Your task to perform on an android device: snooze an email in the gmail app Image 0: 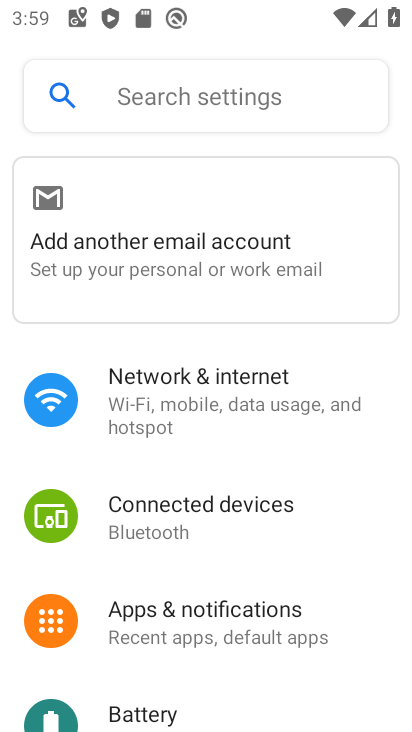
Step 0: press home button
Your task to perform on an android device: snooze an email in the gmail app Image 1: 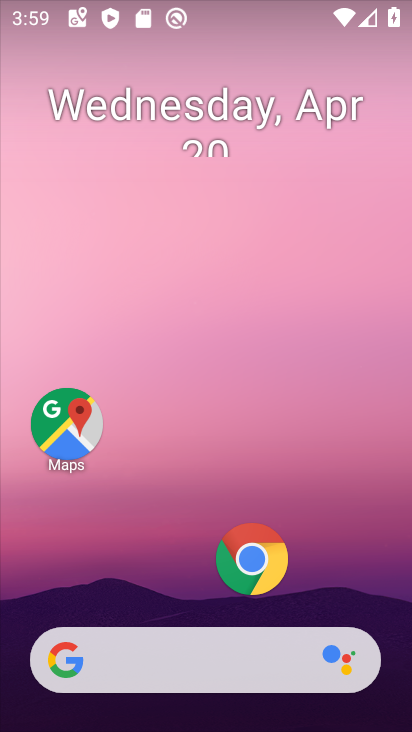
Step 1: drag from (151, 557) to (156, 147)
Your task to perform on an android device: snooze an email in the gmail app Image 2: 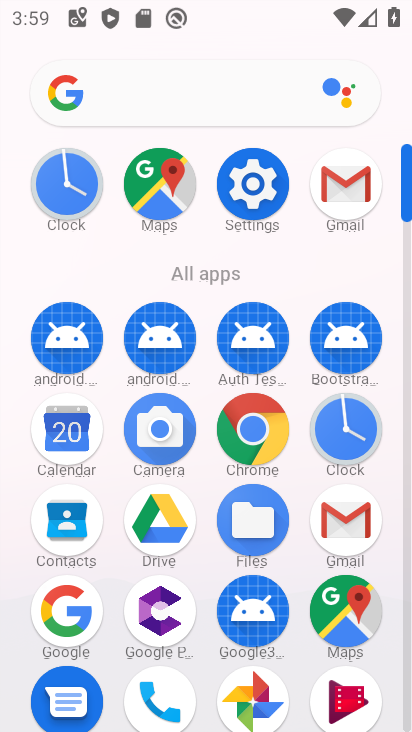
Step 2: click (352, 177)
Your task to perform on an android device: snooze an email in the gmail app Image 3: 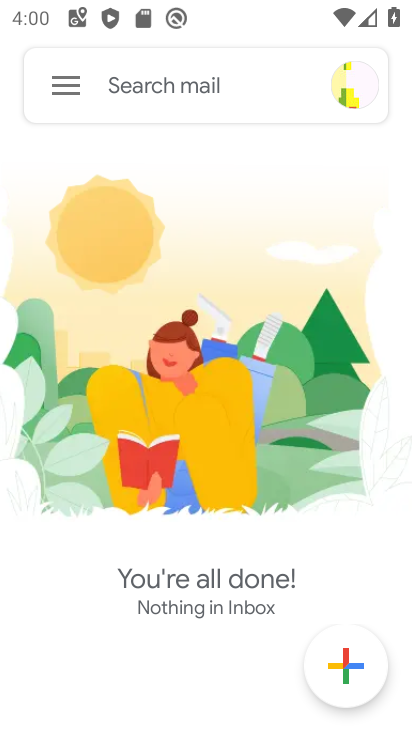
Step 3: click (66, 95)
Your task to perform on an android device: snooze an email in the gmail app Image 4: 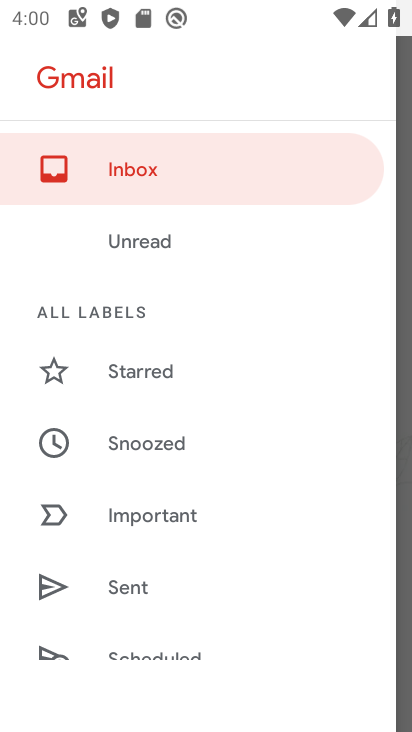
Step 4: click (158, 448)
Your task to perform on an android device: snooze an email in the gmail app Image 5: 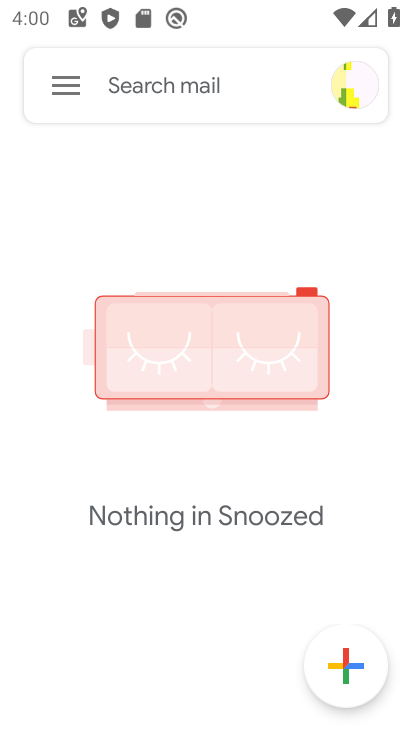
Step 5: task complete